Your task to perform on an android device: check android version Image 0: 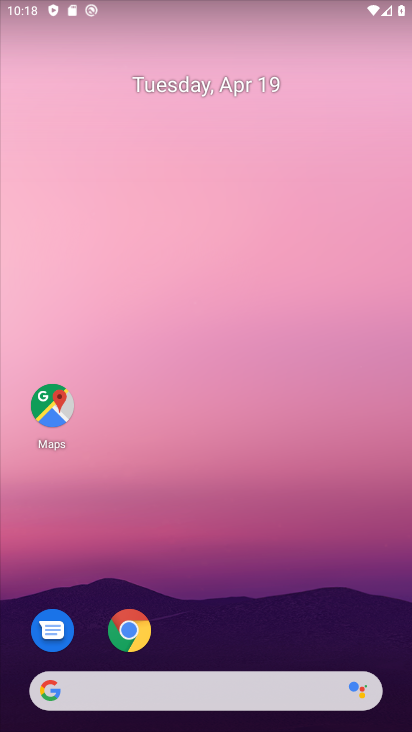
Step 0: drag from (250, 564) to (249, 188)
Your task to perform on an android device: check android version Image 1: 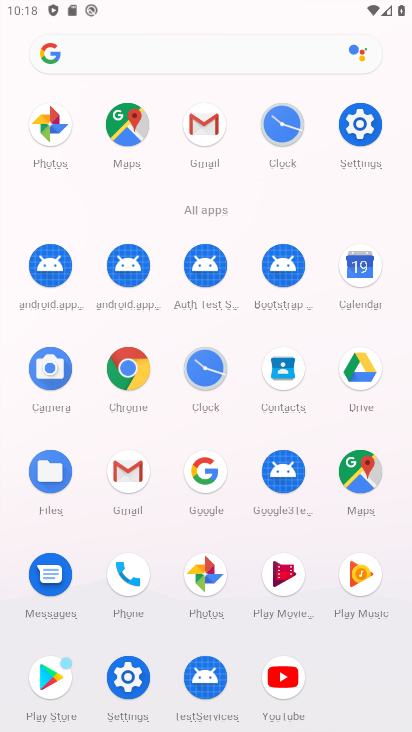
Step 1: click (356, 126)
Your task to perform on an android device: check android version Image 2: 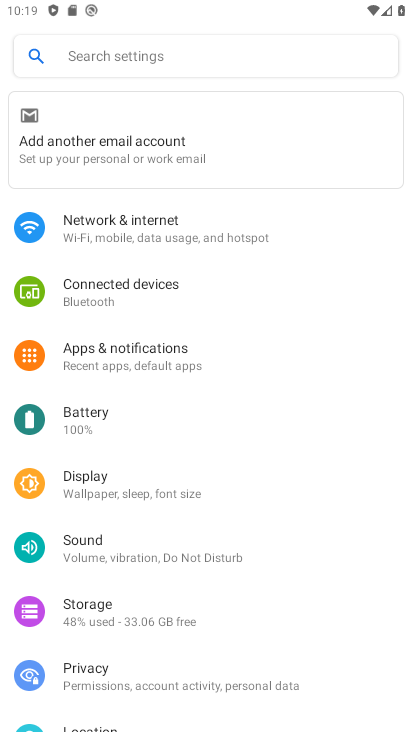
Step 2: drag from (186, 592) to (251, 140)
Your task to perform on an android device: check android version Image 3: 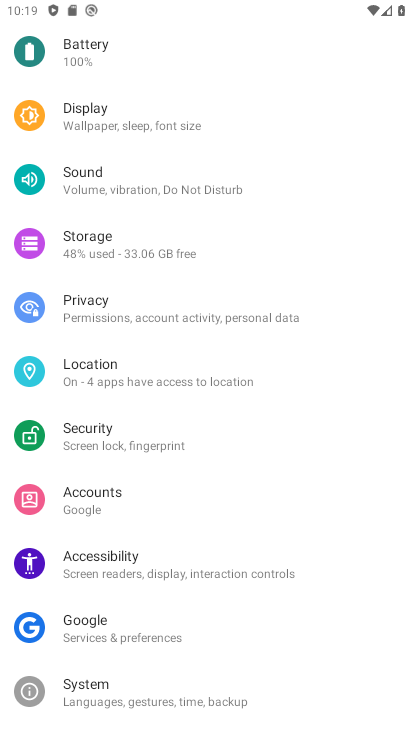
Step 3: drag from (167, 646) to (224, 109)
Your task to perform on an android device: check android version Image 4: 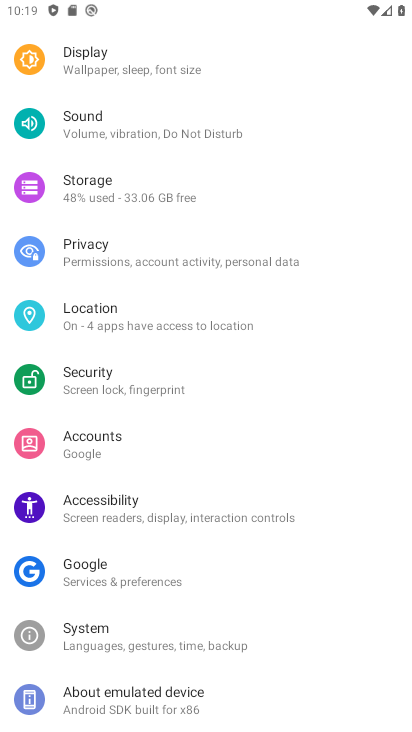
Step 4: click (114, 702)
Your task to perform on an android device: check android version Image 5: 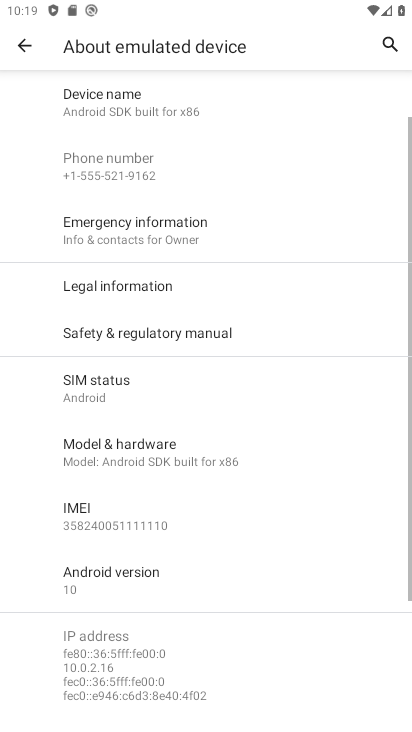
Step 5: click (138, 575)
Your task to perform on an android device: check android version Image 6: 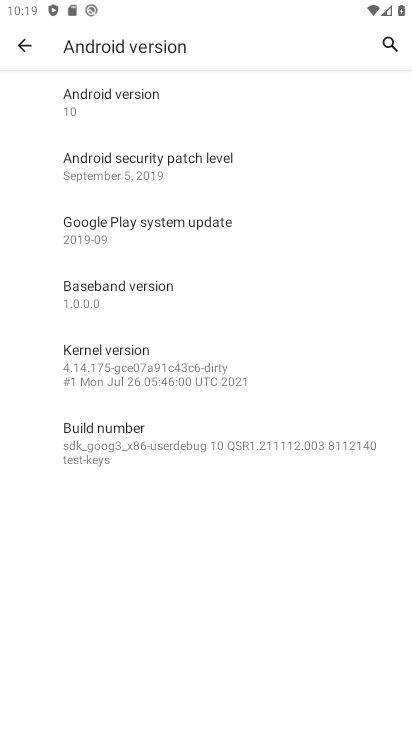
Step 6: click (152, 101)
Your task to perform on an android device: check android version Image 7: 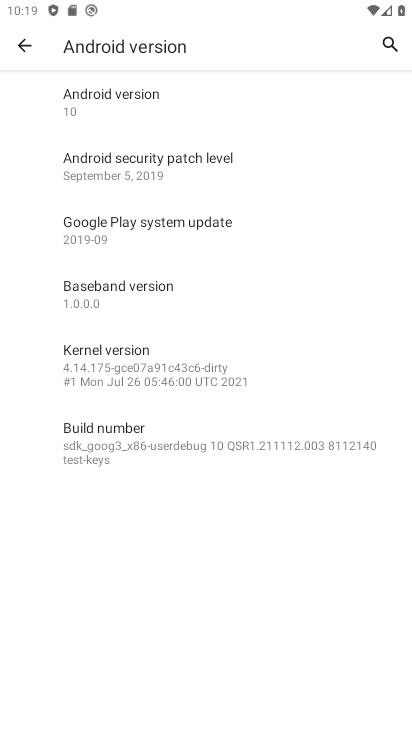
Step 7: task complete